Your task to perform on an android device: Open calendar and show me the second week of next month Image 0: 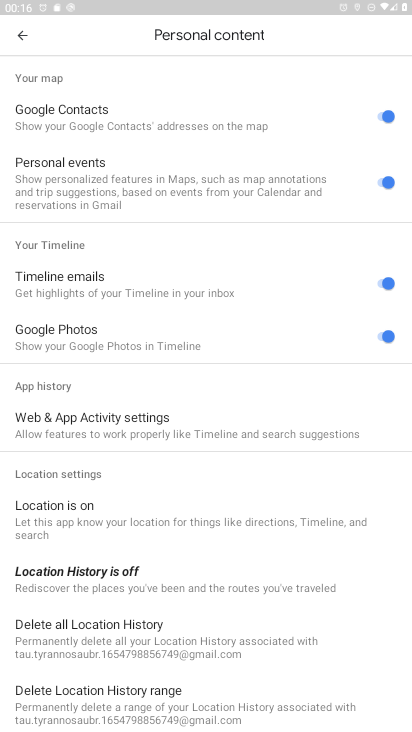
Step 0: press home button
Your task to perform on an android device: Open calendar and show me the second week of next month Image 1: 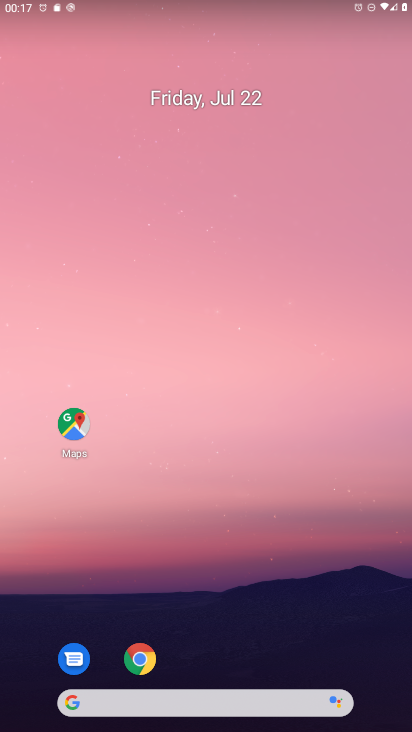
Step 1: drag from (196, 700) to (220, 196)
Your task to perform on an android device: Open calendar and show me the second week of next month Image 2: 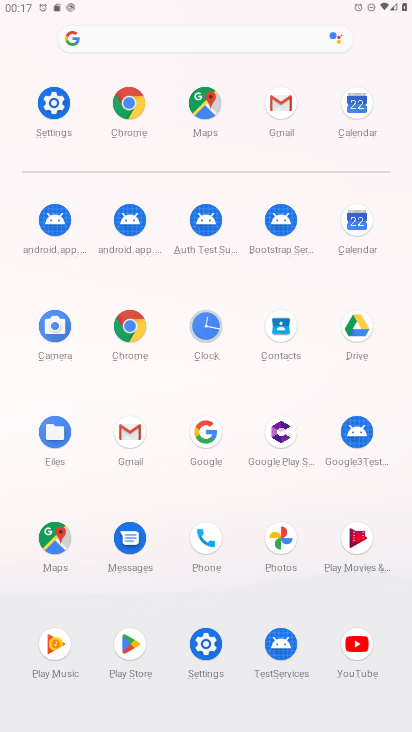
Step 2: click (354, 219)
Your task to perform on an android device: Open calendar and show me the second week of next month Image 3: 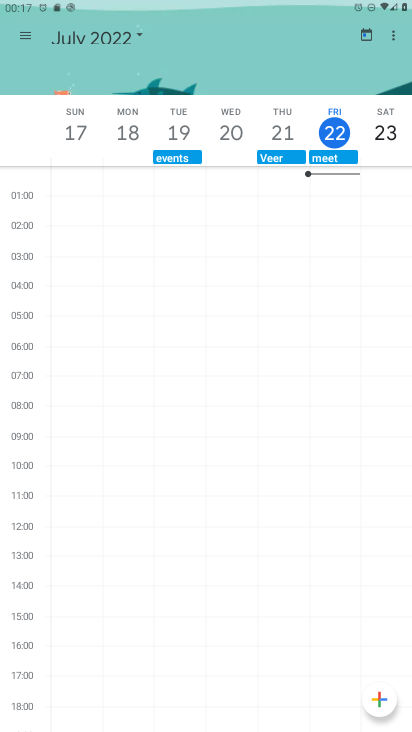
Step 3: click (371, 29)
Your task to perform on an android device: Open calendar and show me the second week of next month Image 4: 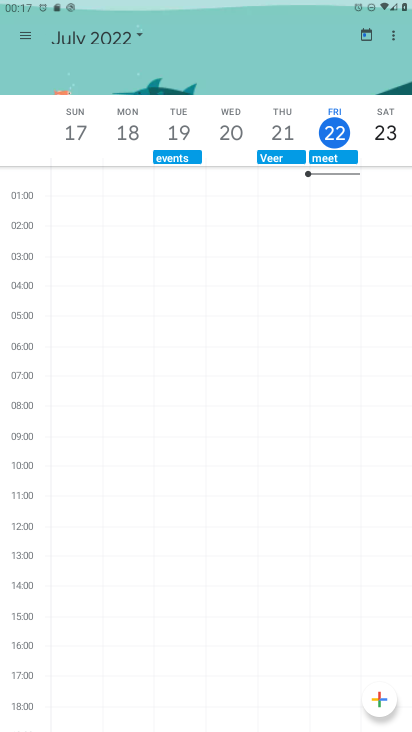
Step 4: click (141, 34)
Your task to perform on an android device: Open calendar and show me the second week of next month Image 5: 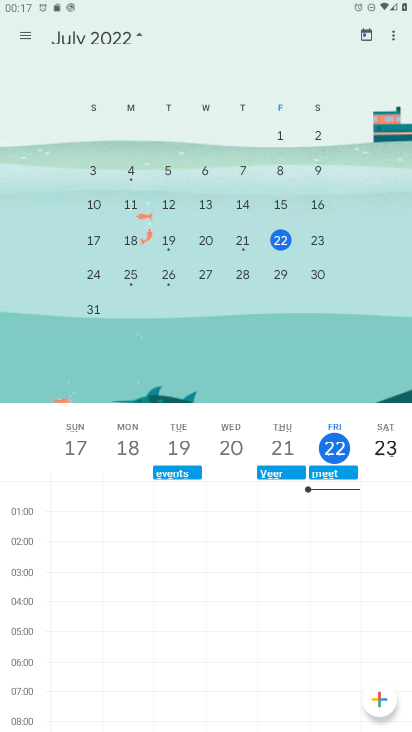
Step 5: drag from (359, 256) to (9, 288)
Your task to perform on an android device: Open calendar and show me the second week of next month Image 6: 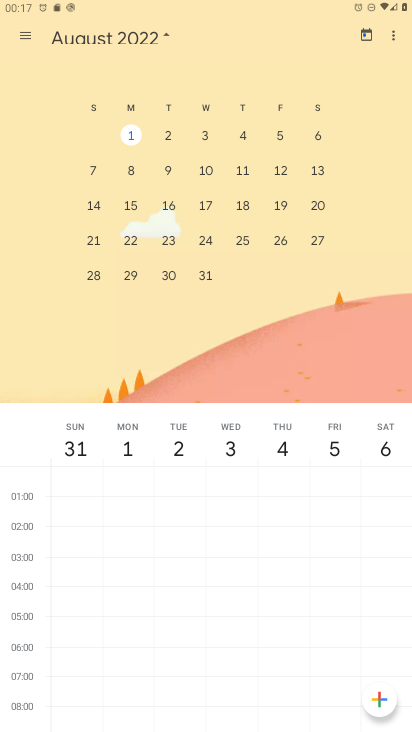
Step 6: click (131, 175)
Your task to perform on an android device: Open calendar and show me the second week of next month Image 7: 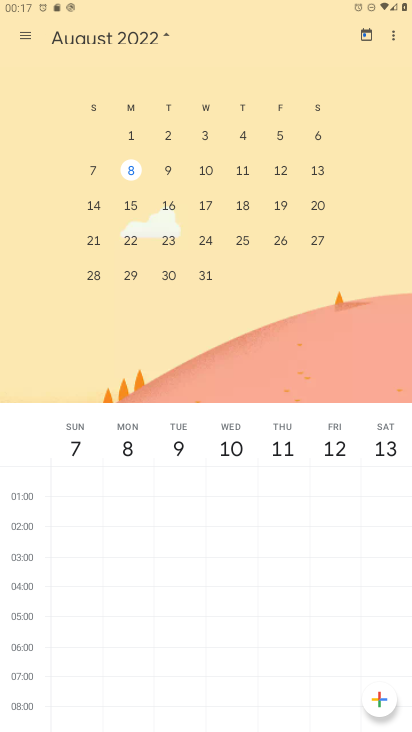
Step 7: click (23, 31)
Your task to perform on an android device: Open calendar and show me the second week of next month Image 8: 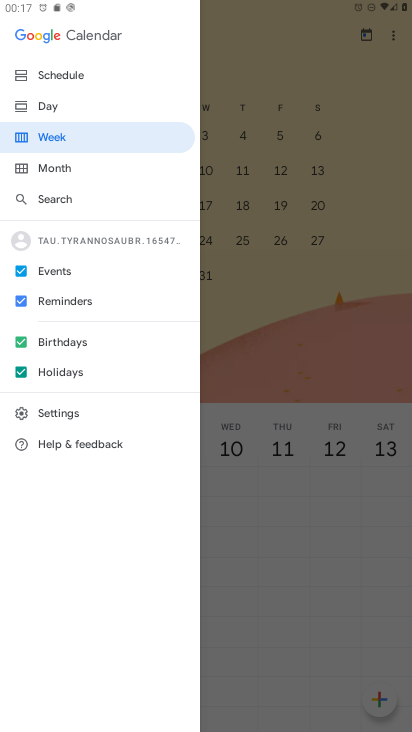
Step 8: click (68, 133)
Your task to perform on an android device: Open calendar and show me the second week of next month Image 9: 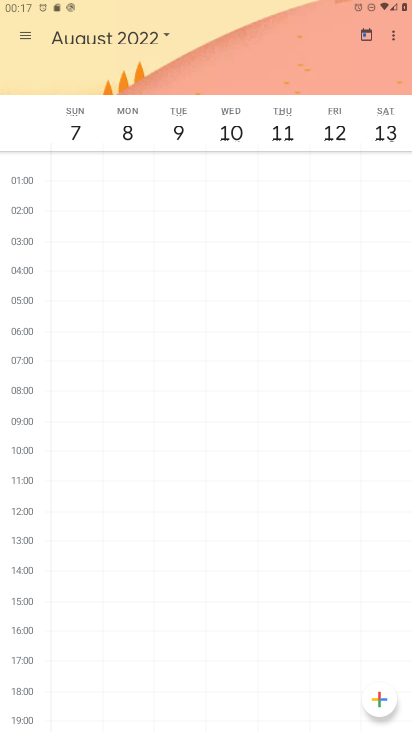
Step 9: task complete